Your task to perform on an android device: Open Google Maps and go to "Timeline" Image 0: 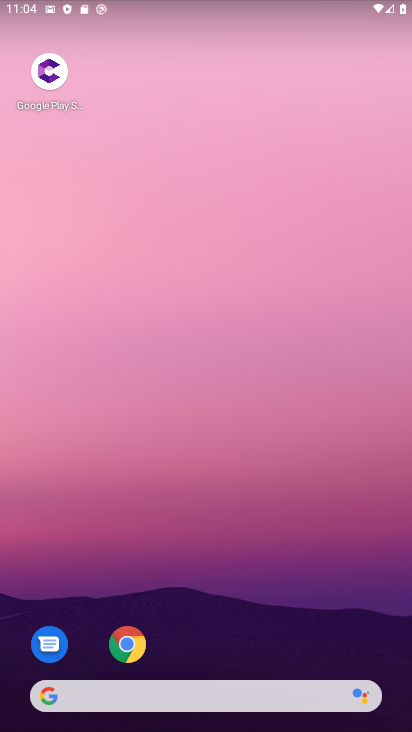
Step 0: drag from (174, 626) to (250, 158)
Your task to perform on an android device: Open Google Maps and go to "Timeline" Image 1: 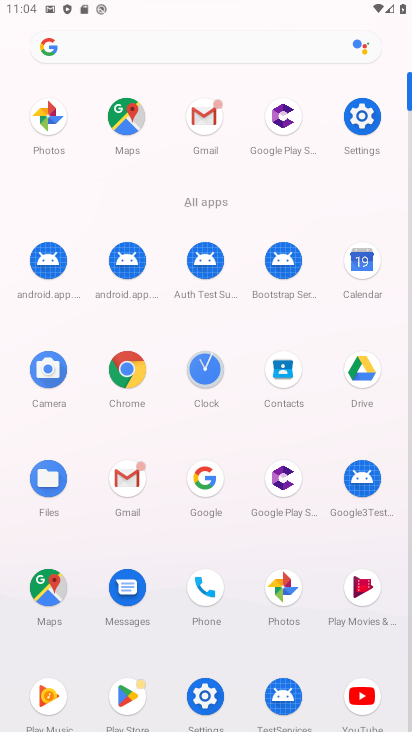
Step 1: click (38, 587)
Your task to perform on an android device: Open Google Maps and go to "Timeline" Image 2: 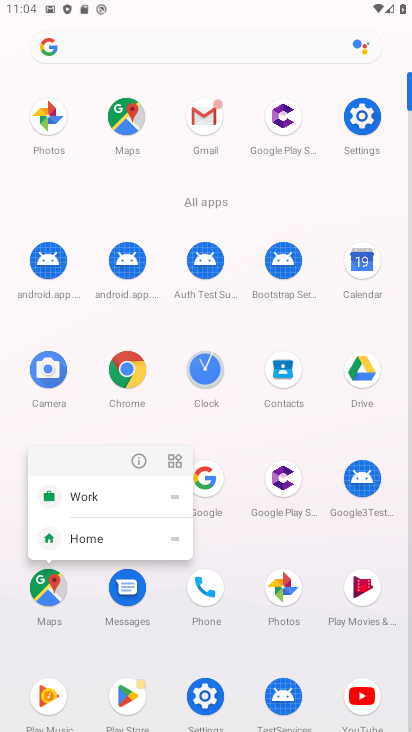
Step 2: click (141, 470)
Your task to perform on an android device: Open Google Maps and go to "Timeline" Image 3: 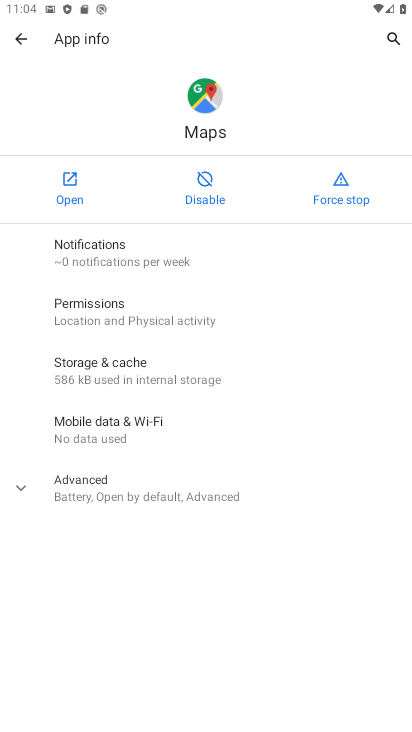
Step 3: click (62, 181)
Your task to perform on an android device: Open Google Maps and go to "Timeline" Image 4: 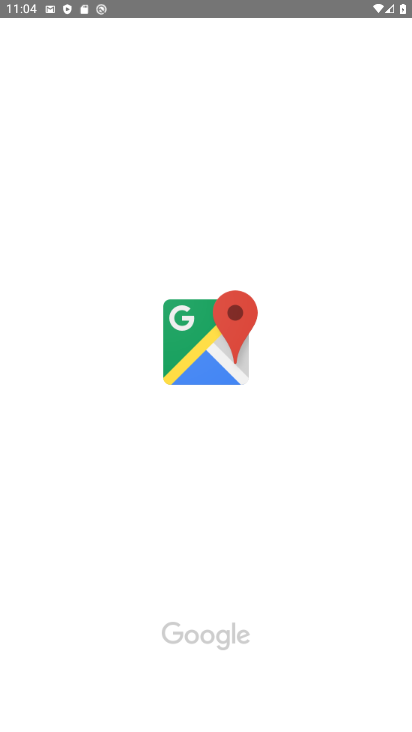
Step 4: drag from (168, 592) to (232, 181)
Your task to perform on an android device: Open Google Maps and go to "Timeline" Image 5: 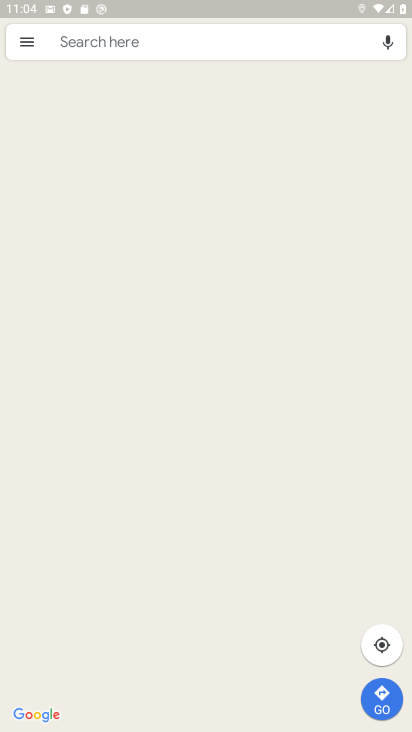
Step 5: drag from (166, 423) to (173, 232)
Your task to perform on an android device: Open Google Maps and go to "Timeline" Image 6: 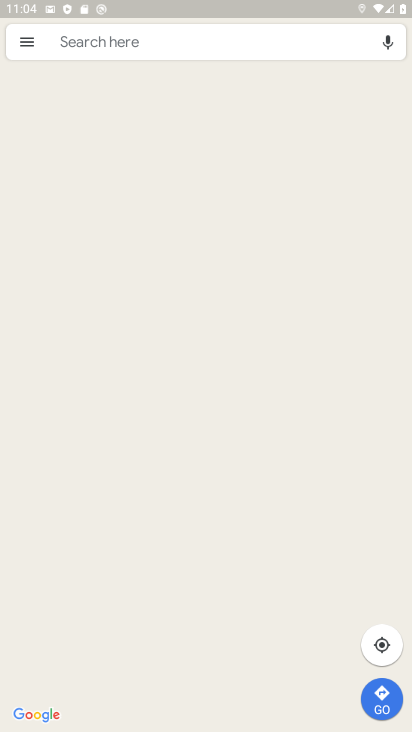
Step 6: drag from (182, 145) to (210, 465)
Your task to perform on an android device: Open Google Maps and go to "Timeline" Image 7: 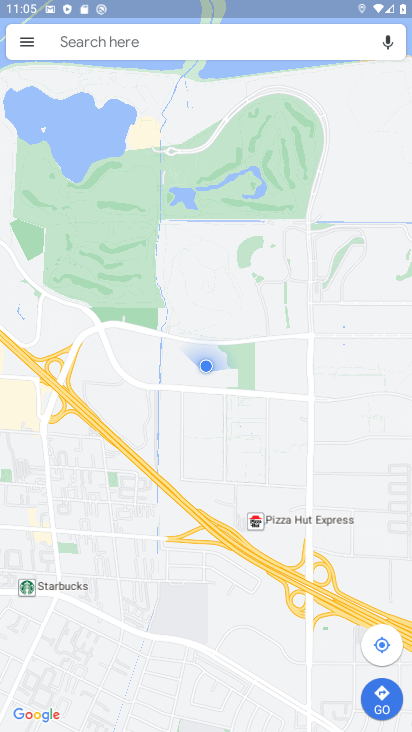
Step 7: click (20, 36)
Your task to perform on an android device: Open Google Maps and go to "Timeline" Image 8: 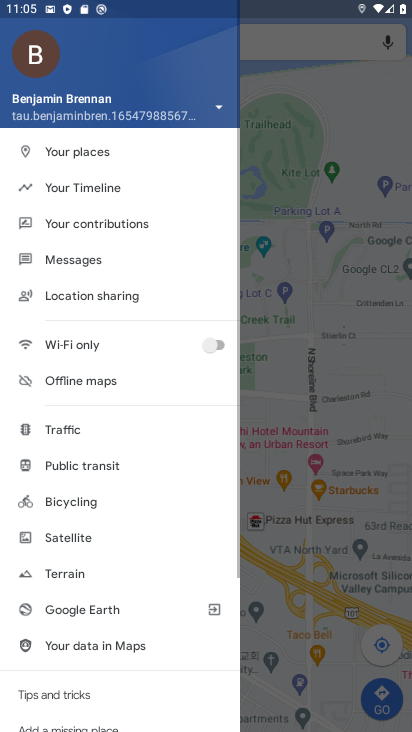
Step 8: click (105, 186)
Your task to perform on an android device: Open Google Maps and go to "Timeline" Image 9: 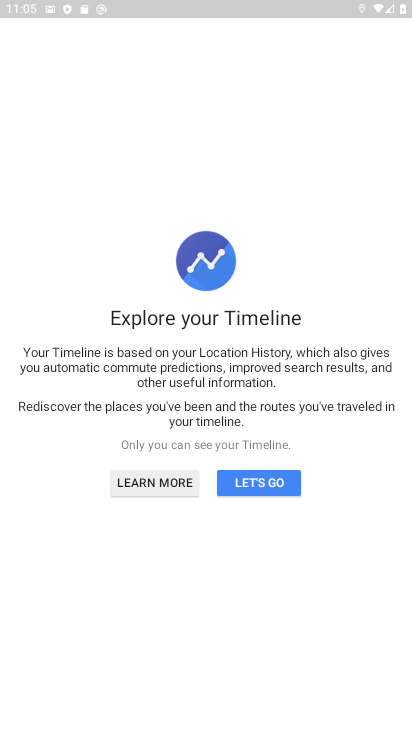
Step 9: click (277, 479)
Your task to perform on an android device: Open Google Maps and go to "Timeline" Image 10: 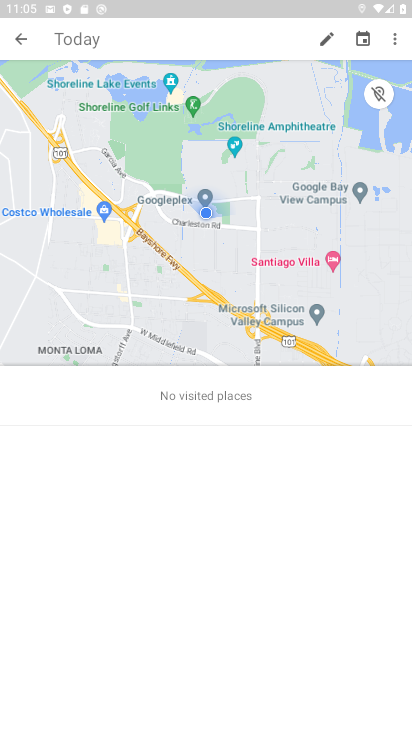
Step 10: task complete